Your task to perform on an android device: refresh tabs in the chrome app Image 0: 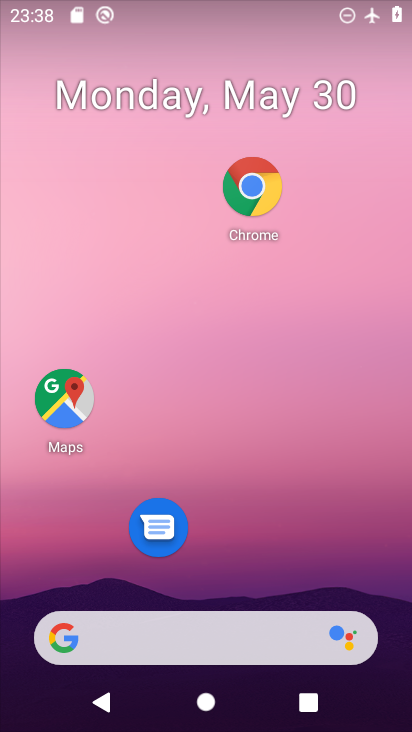
Step 0: click (261, 174)
Your task to perform on an android device: refresh tabs in the chrome app Image 1: 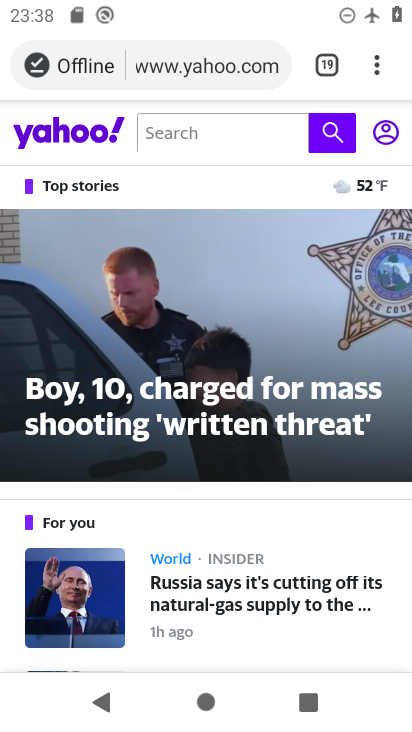
Step 1: click (384, 71)
Your task to perform on an android device: refresh tabs in the chrome app Image 2: 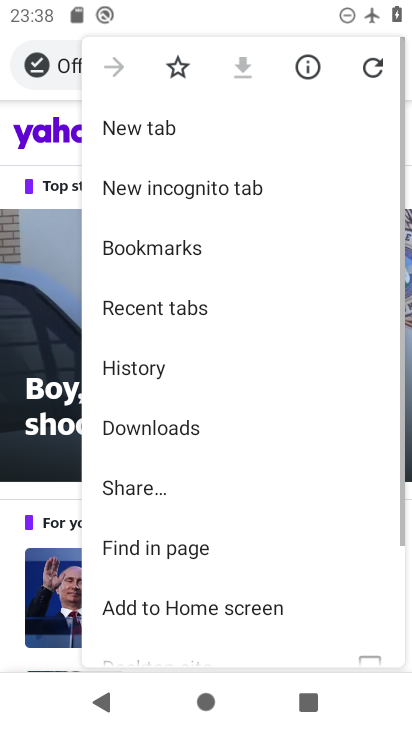
Step 2: click (373, 59)
Your task to perform on an android device: refresh tabs in the chrome app Image 3: 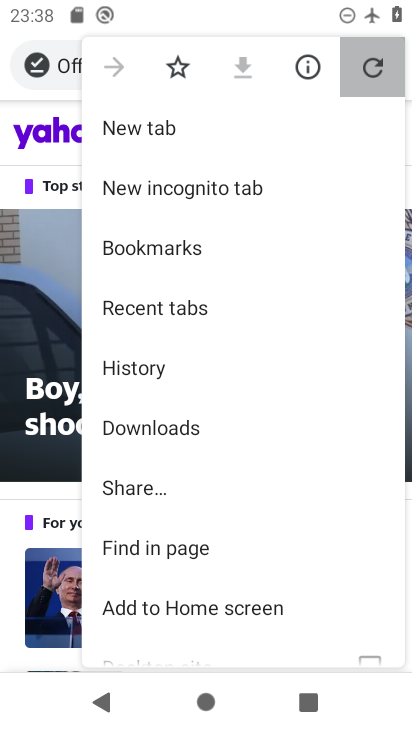
Step 3: click (373, 63)
Your task to perform on an android device: refresh tabs in the chrome app Image 4: 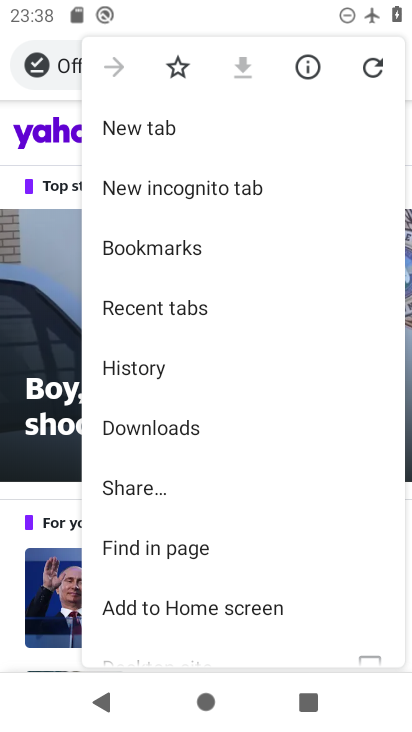
Step 4: task complete